Your task to perform on an android device: check out phone information Image 0: 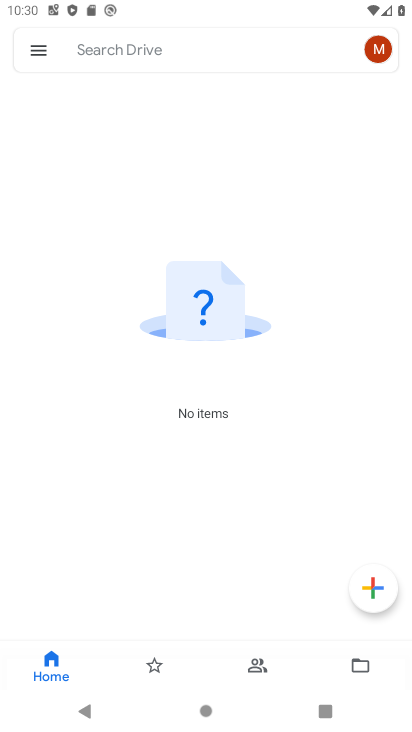
Step 0: press home button
Your task to perform on an android device: check out phone information Image 1: 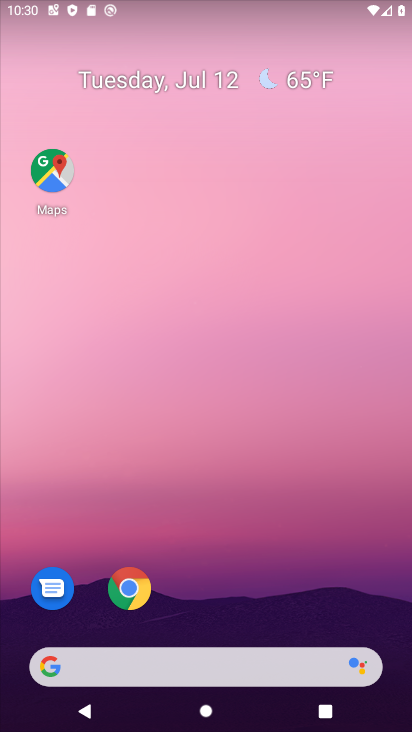
Step 1: drag from (45, 694) to (299, 47)
Your task to perform on an android device: check out phone information Image 2: 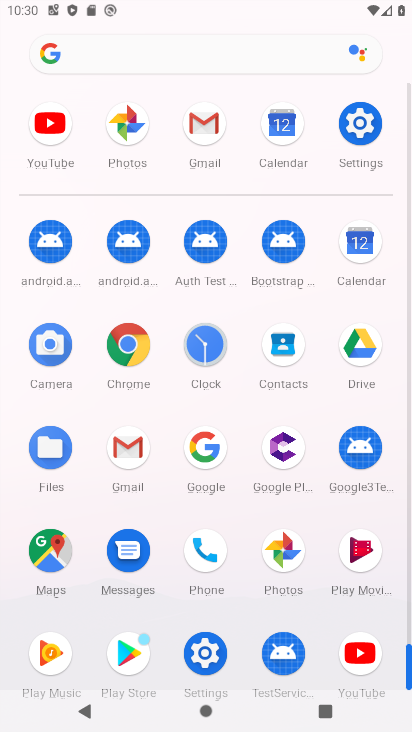
Step 2: click (199, 550)
Your task to perform on an android device: check out phone information Image 3: 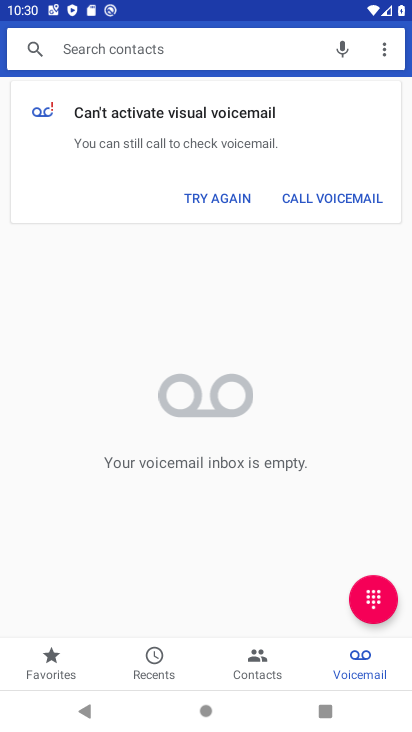
Step 3: click (157, 666)
Your task to perform on an android device: check out phone information Image 4: 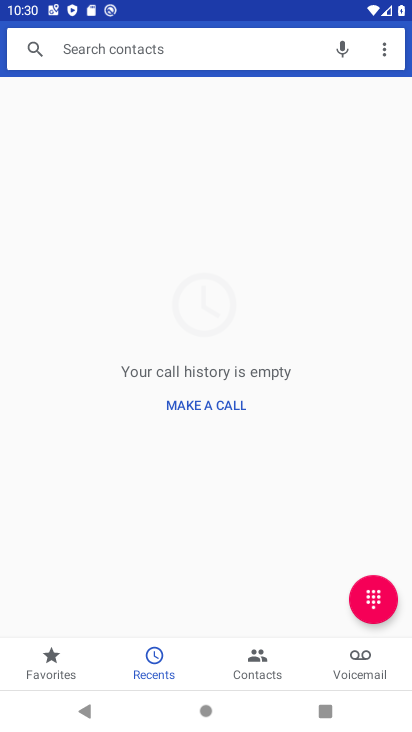
Step 4: click (382, 51)
Your task to perform on an android device: check out phone information Image 5: 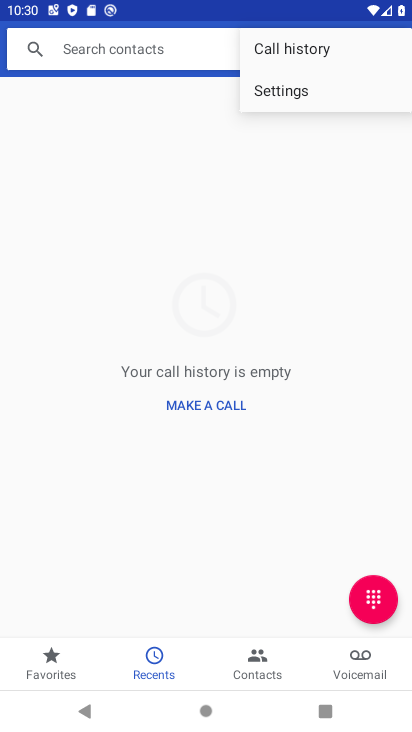
Step 5: click (344, 194)
Your task to perform on an android device: check out phone information Image 6: 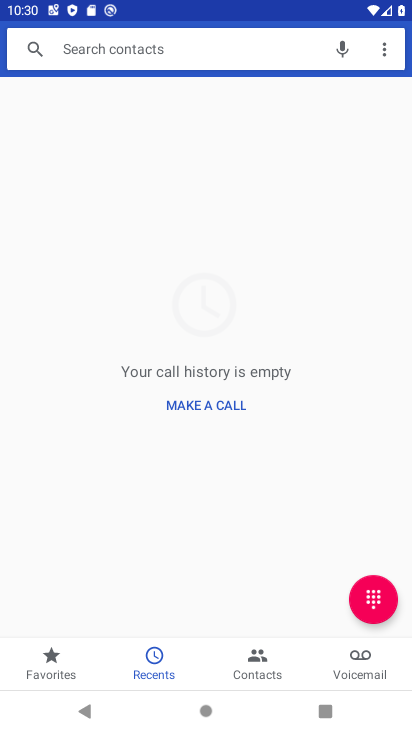
Step 6: task complete